Your task to perform on an android device: add a label to a message in the gmail app Image 0: 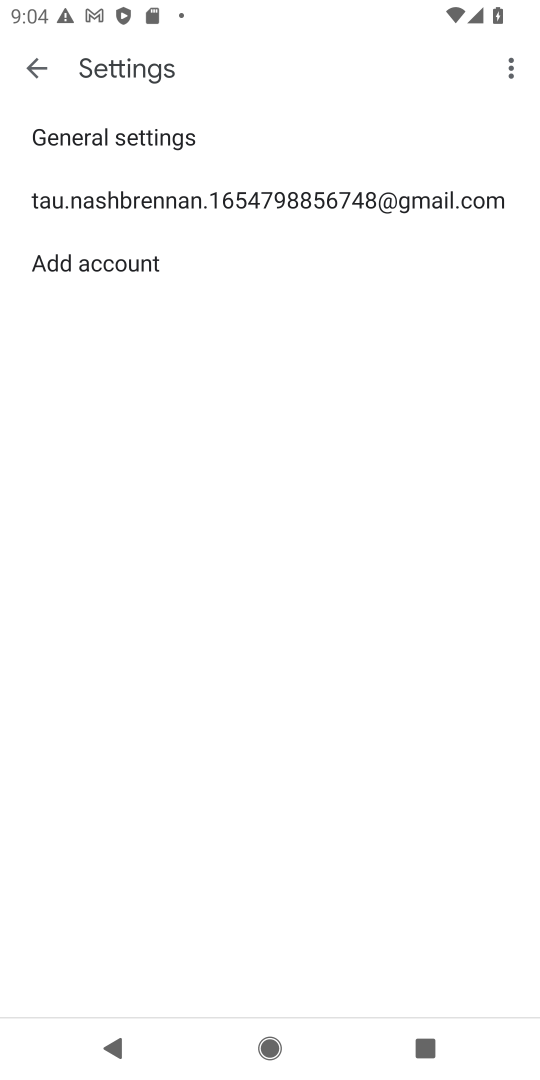
Step 0: press home button
Your task to perform on an android device: add a label to a message in the gmail app Image 1: 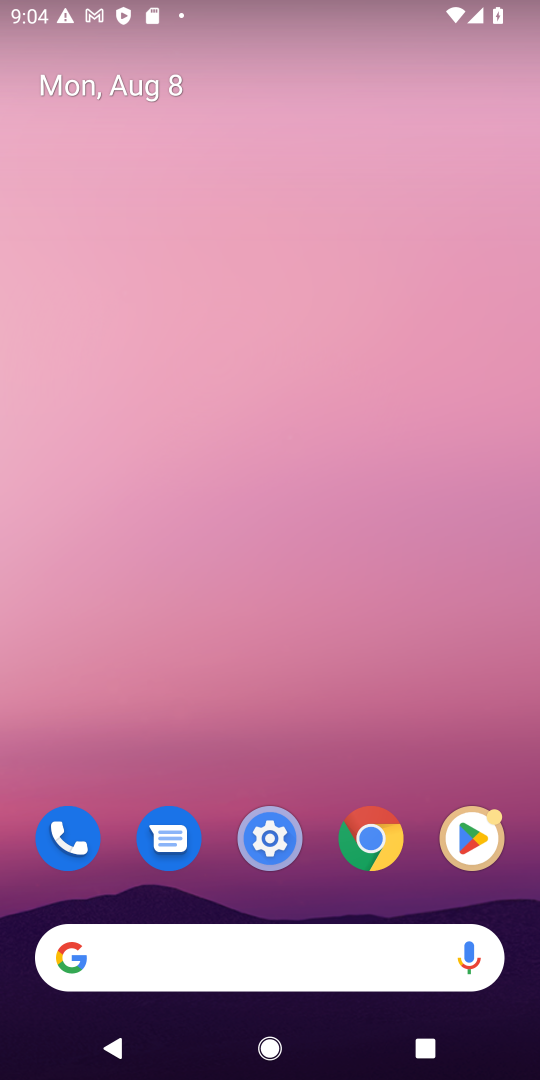
Step 1: drag from (334, 554) to (397, 1)
Your task to perform on an android device: add a label to a message in the gmail app Image 2: 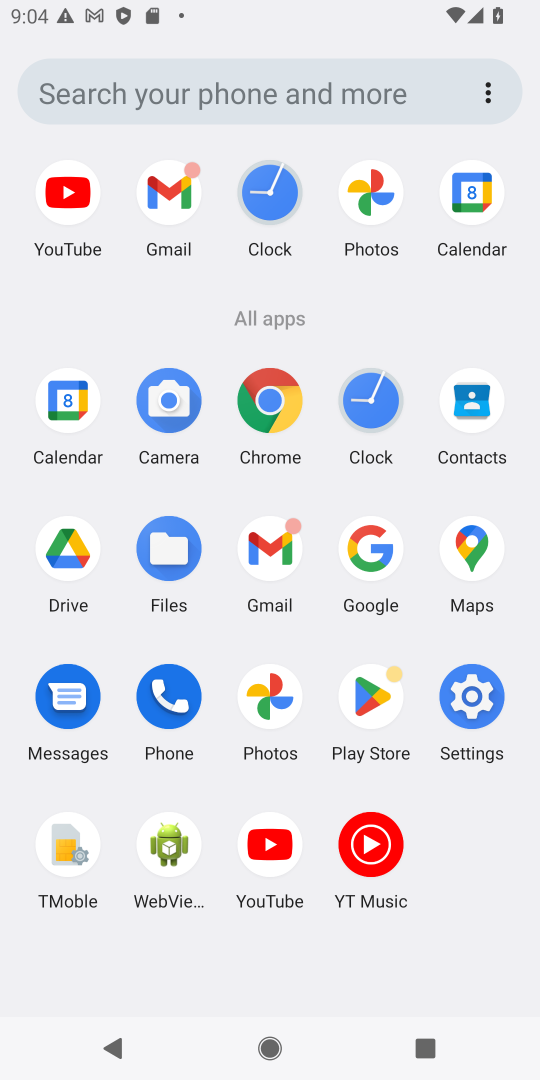
Step 2: click (169, 178)
Your task to perform on an android device: add a label to a message in the gmail app Image 3: 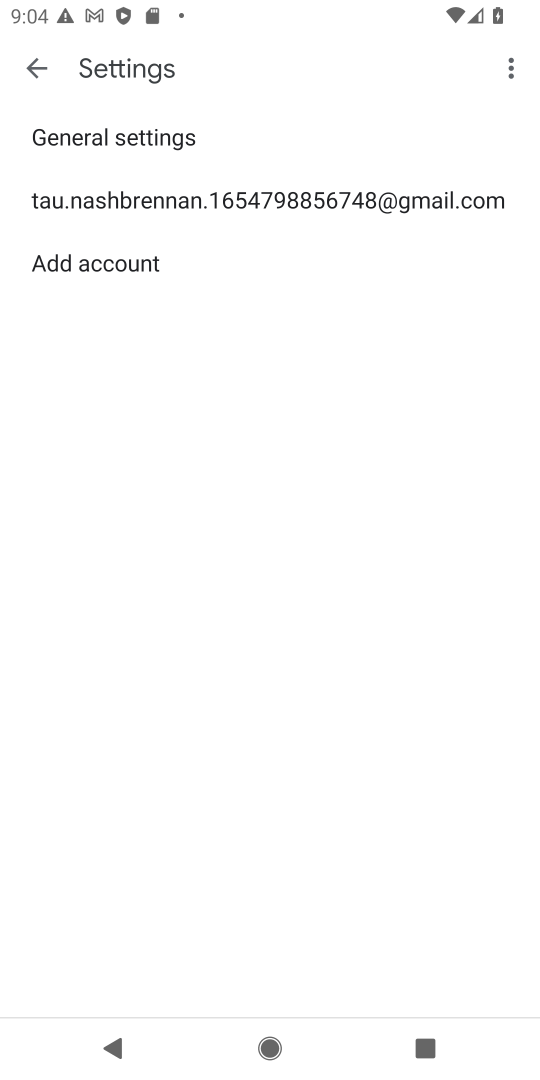
Step 3: click (220, 203)
Your task to perform on an android device: add a label to a message in the gmail app Image 4: 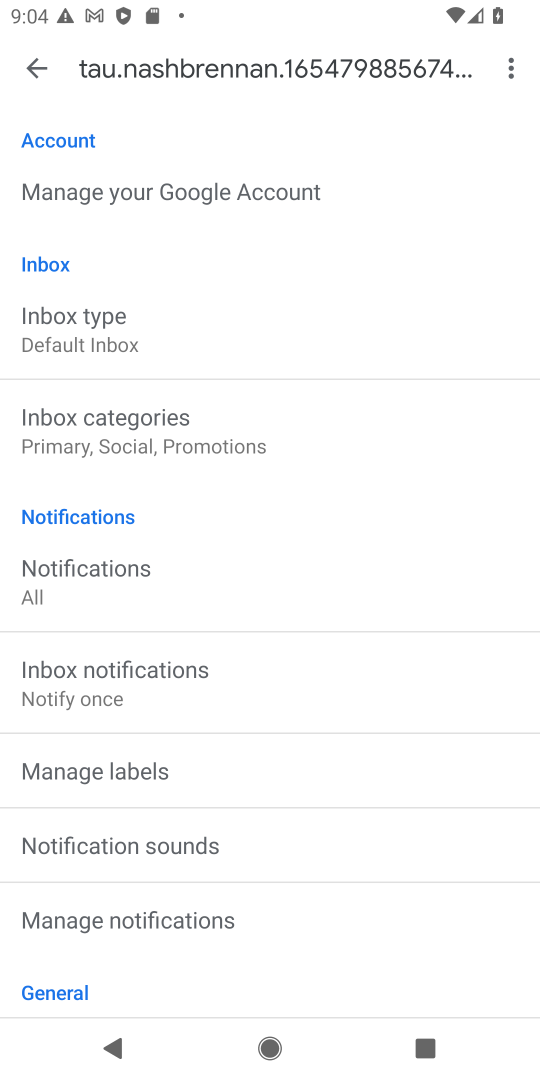
Step 4: click (28, 65)
Your task to perform on an android device: add a label to a message in the gmail app Image 5: 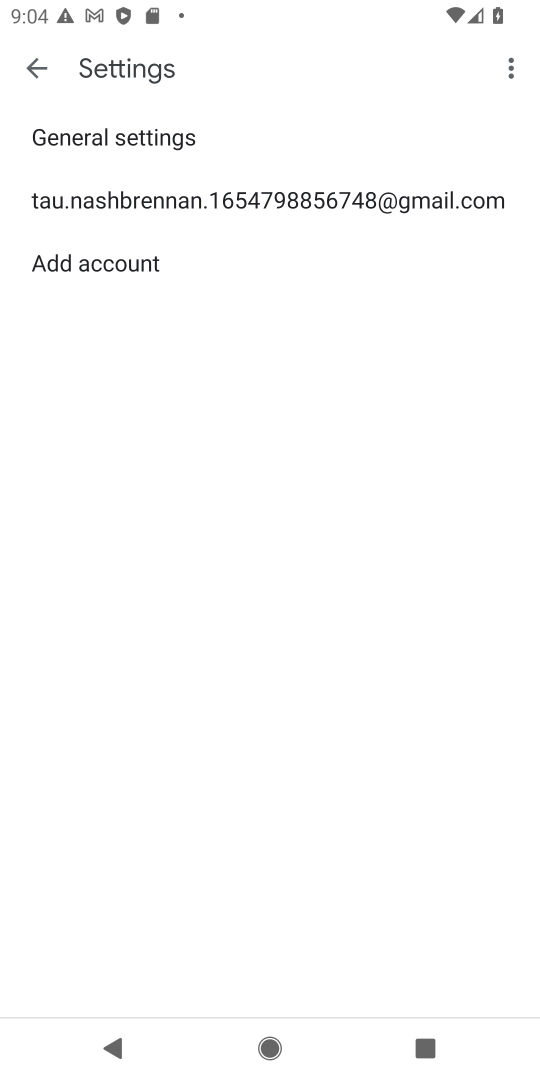
Step 5: click (197, 196)
Your task to perform on an android device: add a label to a message in the gmail app Image 6: 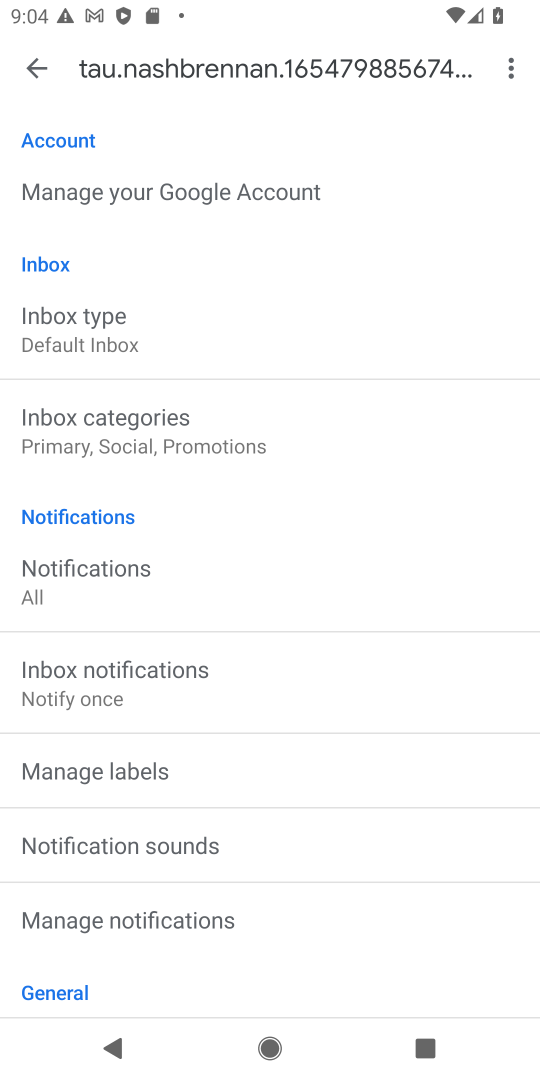
Step 6: click (34, 61)
Your task to perform on an android device: add a label to a message in the gmail app Image 7: 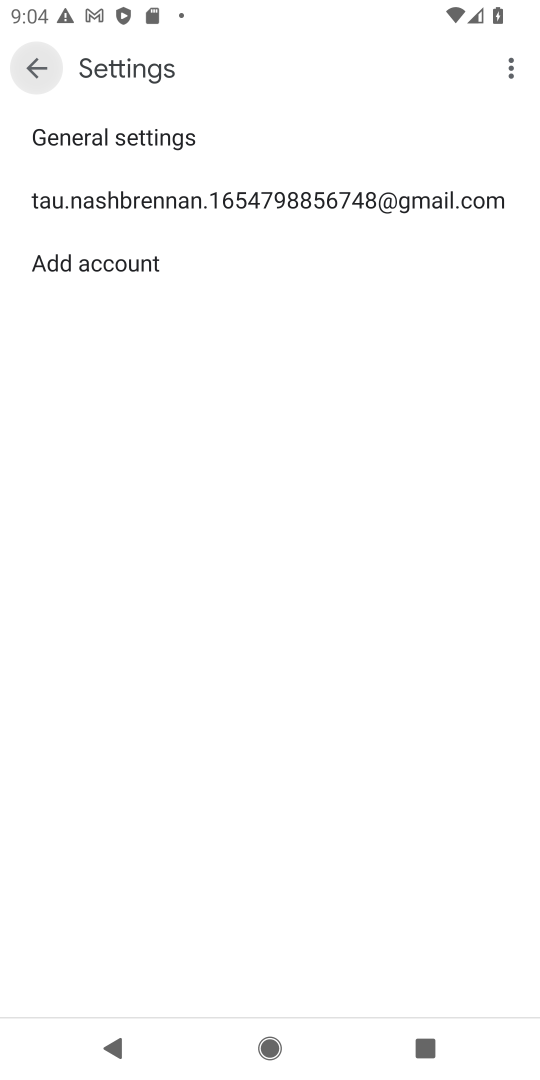
Step 7: click (35, 60)
Your task to perform on an android device: add a label to a message in the gmail app Image 8: 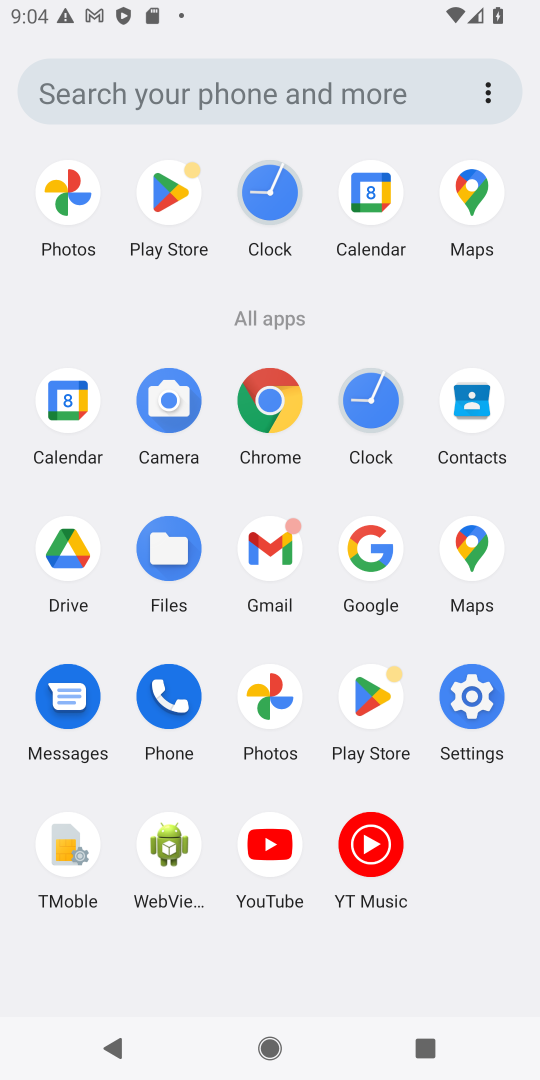
Step 8: click (258, 525)
Your task to perform on an android device: add a label to a message in the gmail app Image 9: 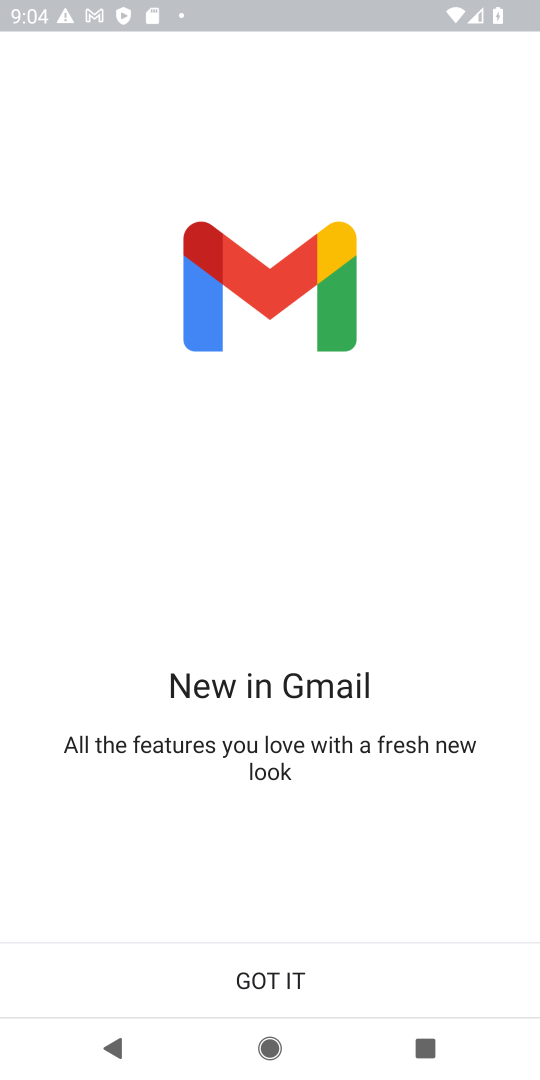
Step 9: click (279, 971)
Your task to perform on an android device: add a label to a message in the gmail app Image 10: 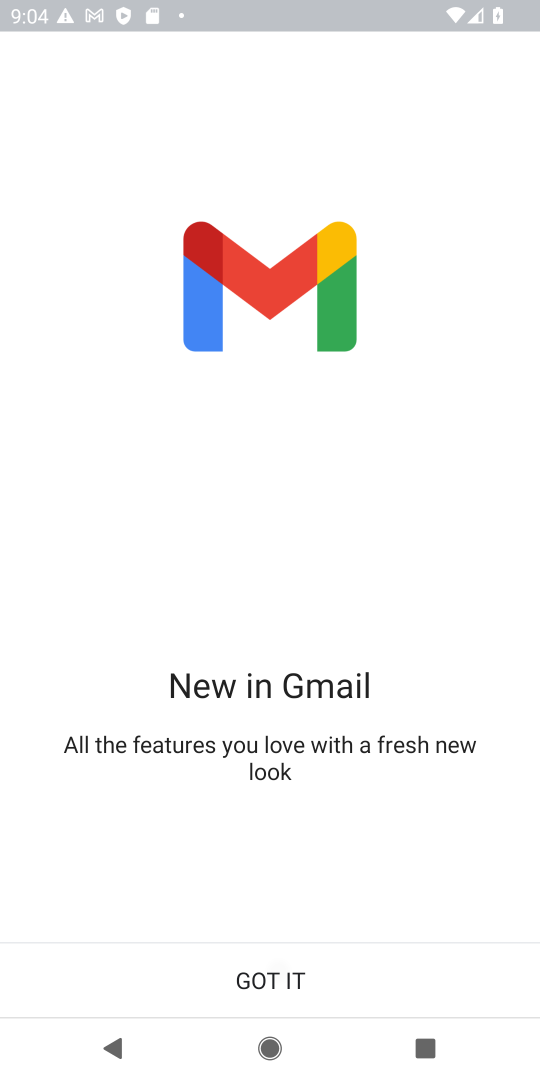
Step 10: click (277, 972)
Your task to perform on an android device: add a label to a message in the gmail app Image 11: 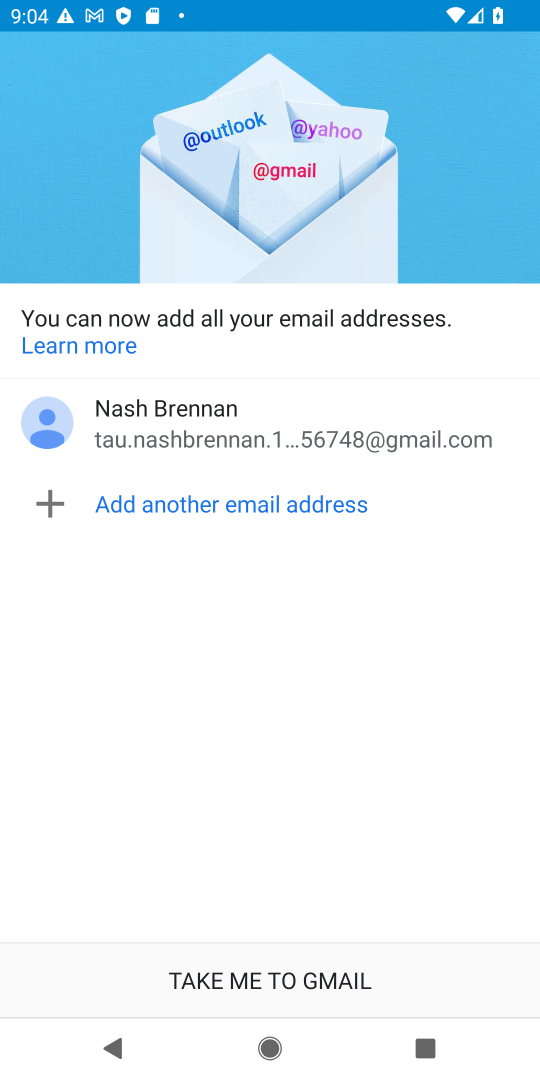
Step 11: click (277, 968)
Your task to perform on an android device: add a label to a message in the gmail app Image 12: 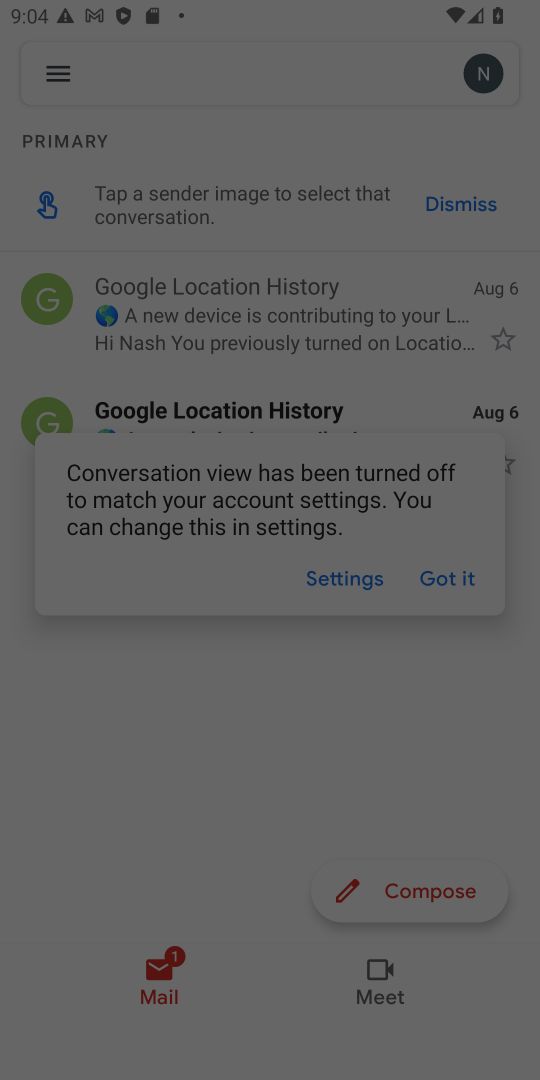
Step 12: click (456, 577)
Your task to perform on an android device: add a label to a message in the gmail app Image 13: 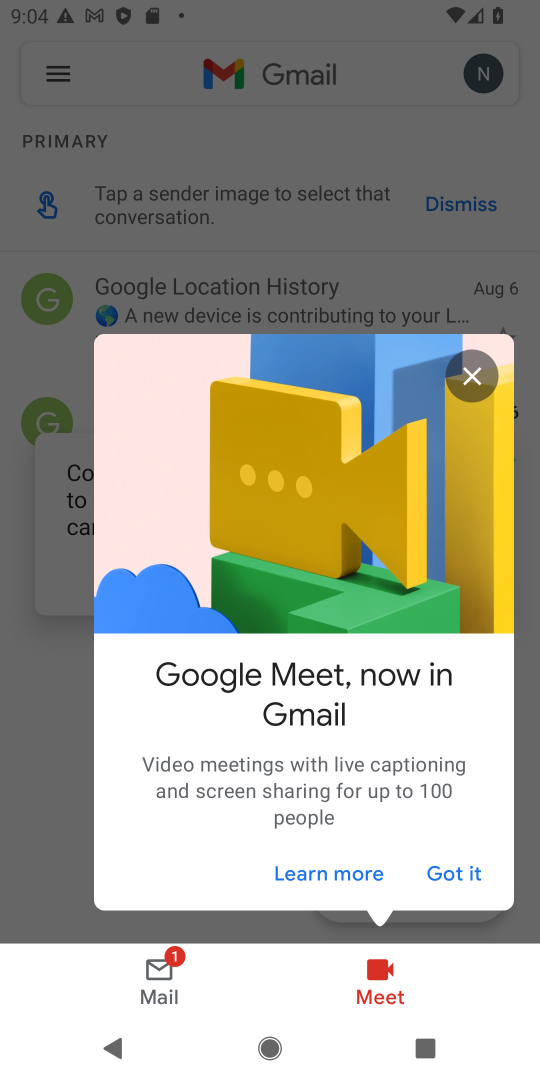
Step 13: click (476, 369)
Your task to perform on an android device: add a label to a message in the gmail app Image 14: 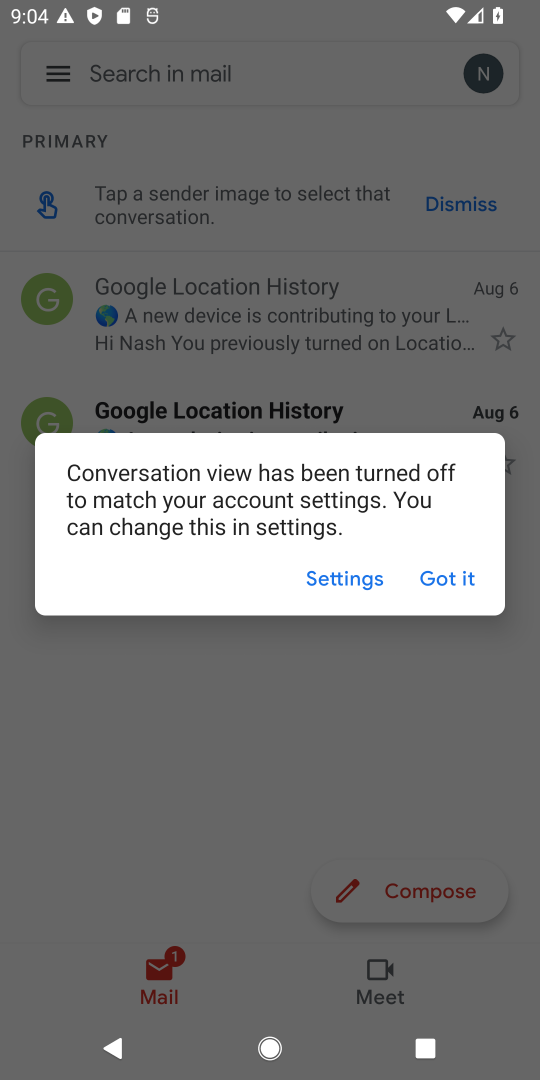
Step 14: click (469, 574)
Your task to perform on an android device: add a label to a message in the gmail app Image 15: 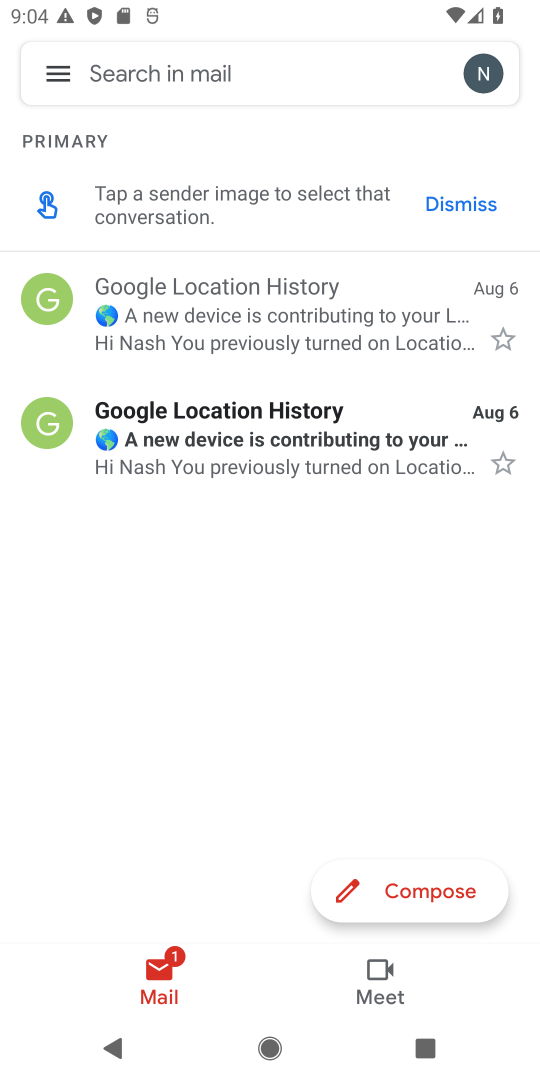
Step 15: click (281, 302)
Your task to perform on an android device: add a label to a message in the gmail app Image 16: 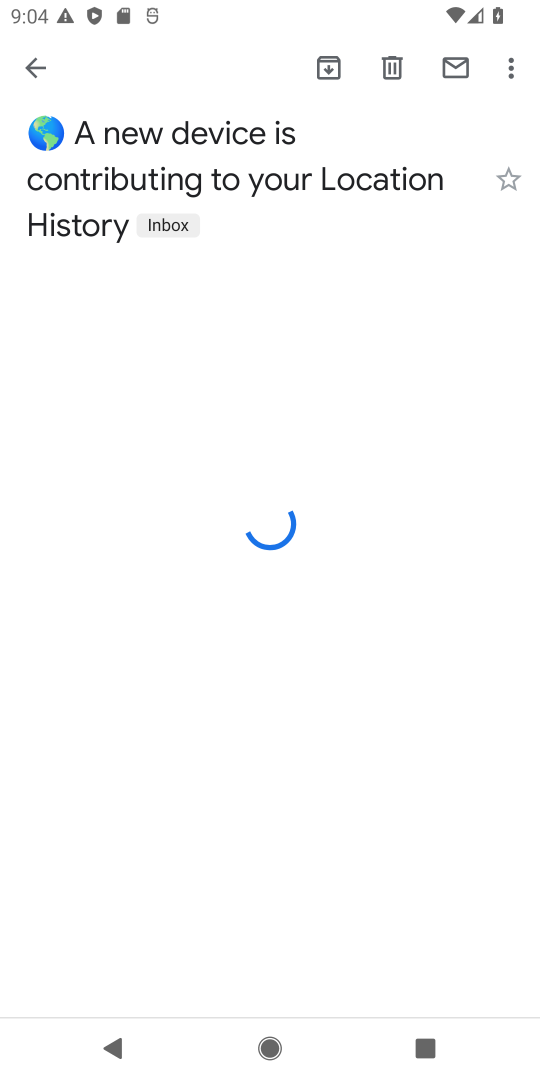
Step 16: click (511, 71)
Your task to perform on an android device: add a label to a message in the gmail app Image 17: 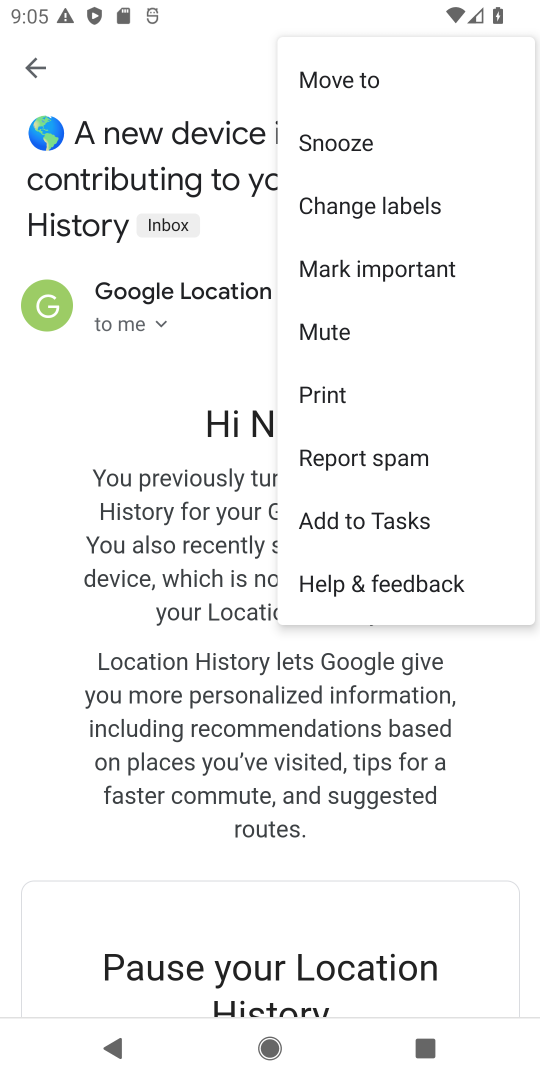
Step 17: click (352, 192)
Your task to perform on an android device: add a label to a message in the gmail app Image 18: 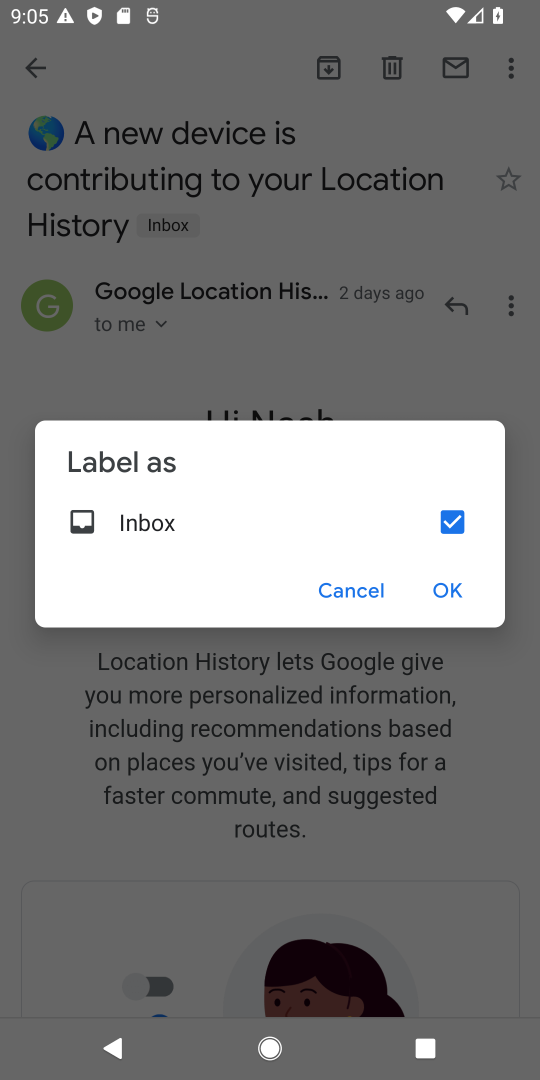
Step 18: click (442, 575)
Your task to perform on an android device: add a label to a message in the gmail app Image 19: 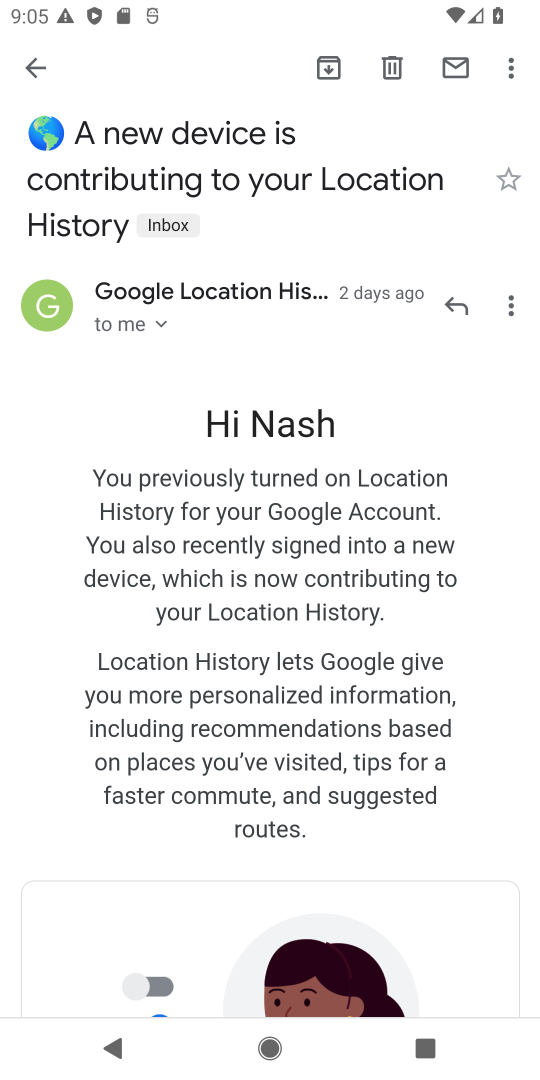
Step 19: task complete